Your task to perform on an android device: turn on wifi Image 0: 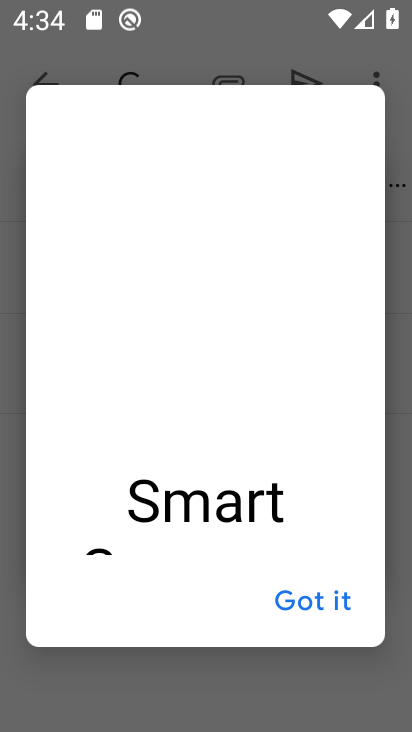
Step 0: press home button
Your task to perform on an android device: turn on wifi Image 1: 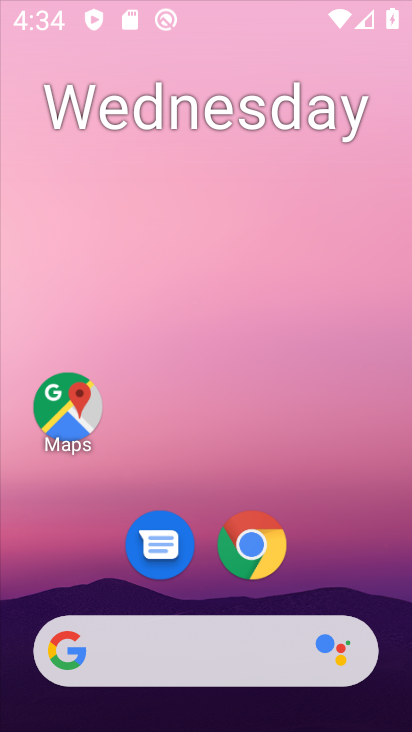
Step 1: drag from (214, 657) to (0, 212)
Your task to perform on an android device: turn on wifi Image 2: 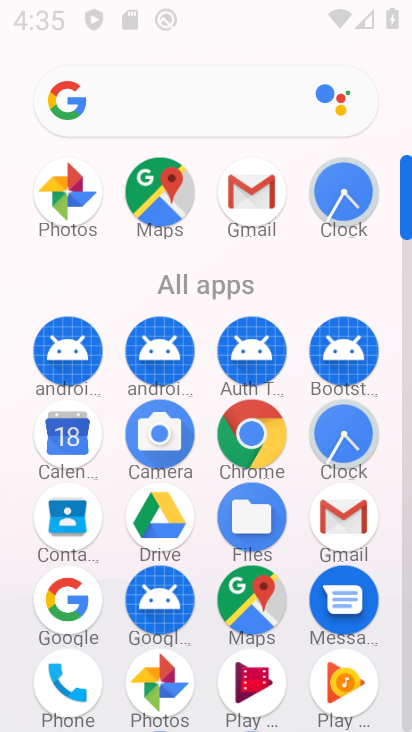
Step 2: drag from (201, 590) to (111, 45)
Your task to perform on an android device: turn on wifi Image 3: 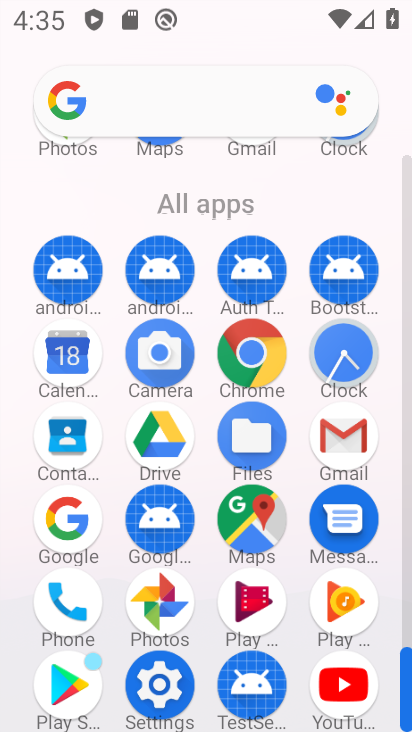
Step 3: click (156, 689)
Your task to perform on an android device: turn on wifi Image 4: 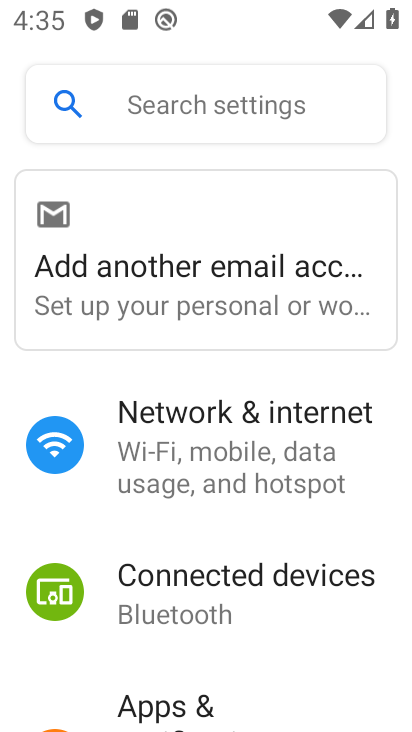
Step 4: drag from (204, 288) to (163, 24)
Your task to perform on an android device: turn on wifi Image 5: 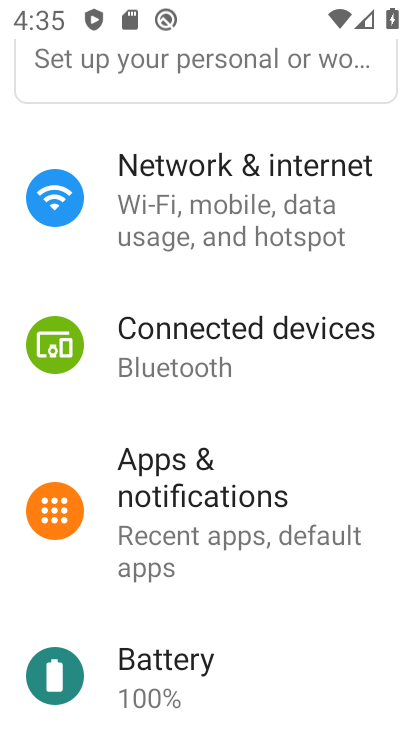
Step 5: click (191, 197)
Your task to perform on an android device: turn on wifi Image 6: 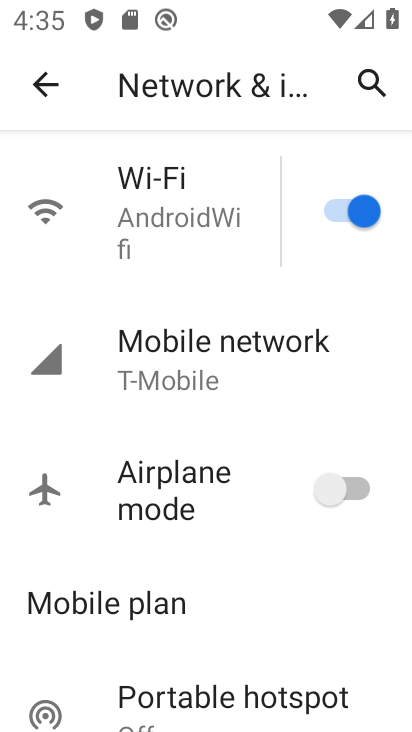
Step 6: click (197, 213)
Your task to perform on an android device: turn on wifi Image 7: 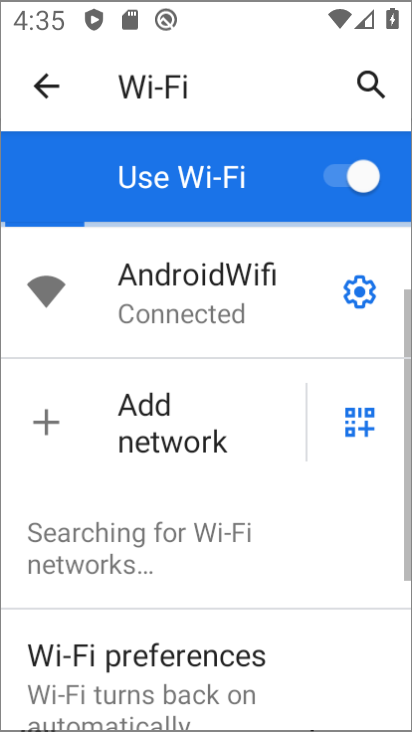
Step 7: task complete